Your task to perform on an android device: turn off picture-in-picture Image 0: 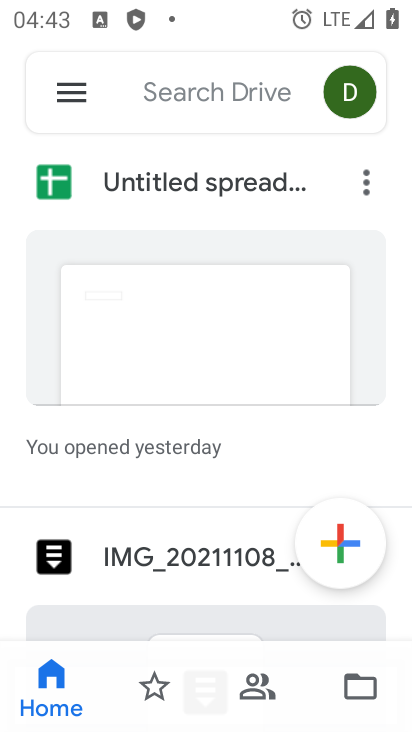
Step 0: press home button
Your task to perform on an android device: turn off picture-in-picture Image 1: 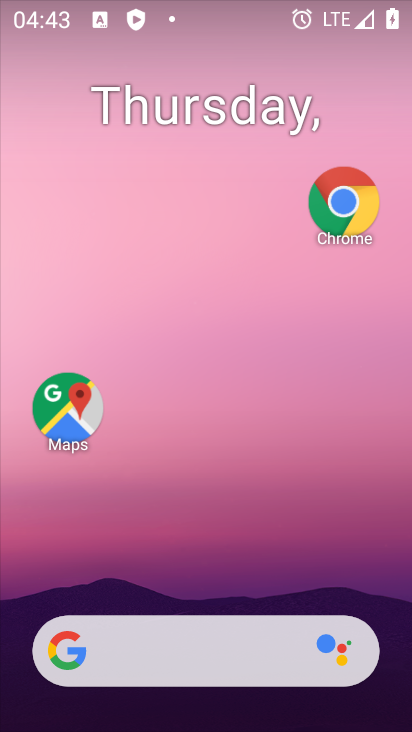
Step 1: drag from (340, 639) to (381, 132)
Your task to perform on an android device: turn off picture-in-picture Image 2: 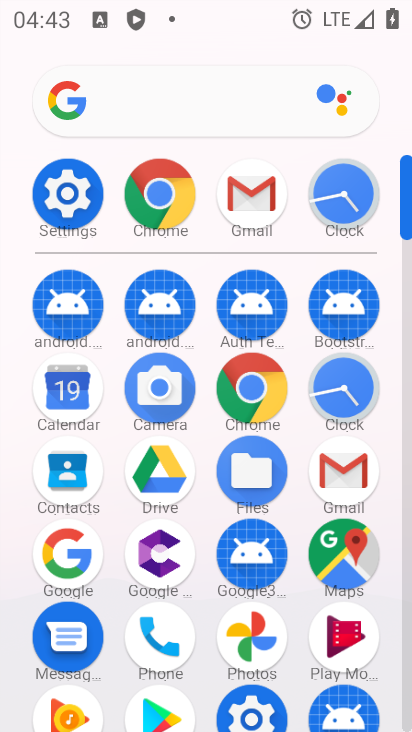
Step 2: click (61, 189)
Your task to perform on an android device: turn off picture-in-picture Image 3: 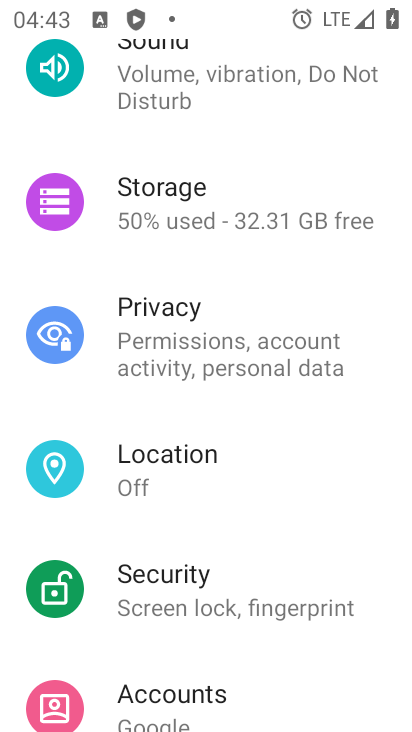
Step 3: drag from (251, 212) to (234, 680)
Your task to perform on an android device: turn off picture-in-picture Image 4: 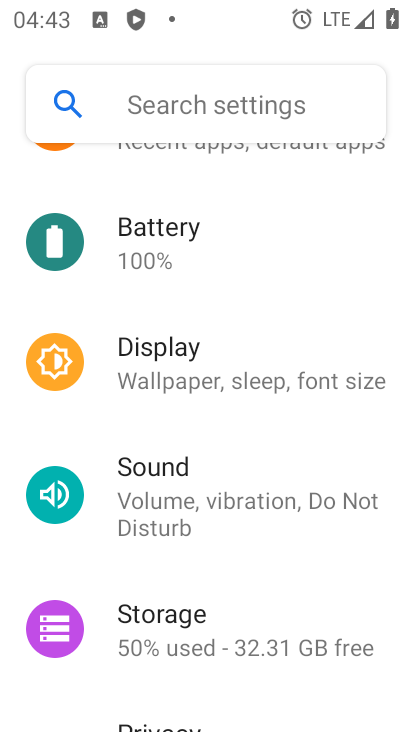
Step 4: drag from (222, 322) to (239, 699)
Your task to perform on an android device: turn off picture-in-picture Image 5: 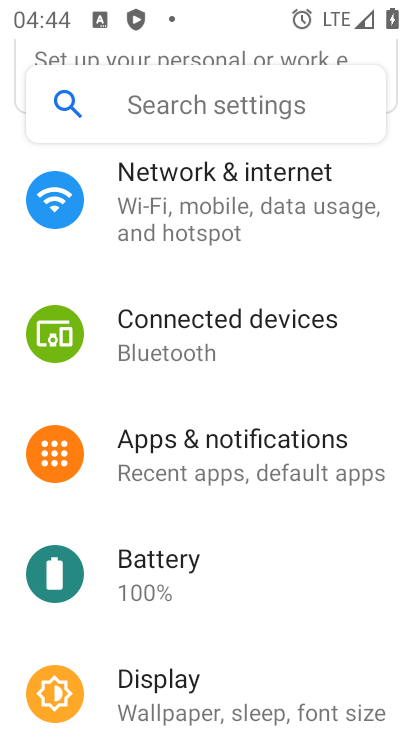
Step 5: click (238, 465)
Your task to perform on an android device: turn off picture-in-picture Image 6: 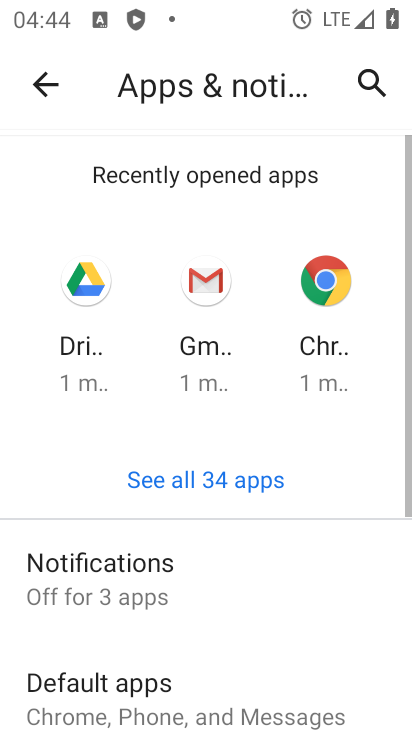
Step 6: drag from (275, 627) to (246, 93)
Your task to perform on an android device: turn off picture-in-picture Image 7: 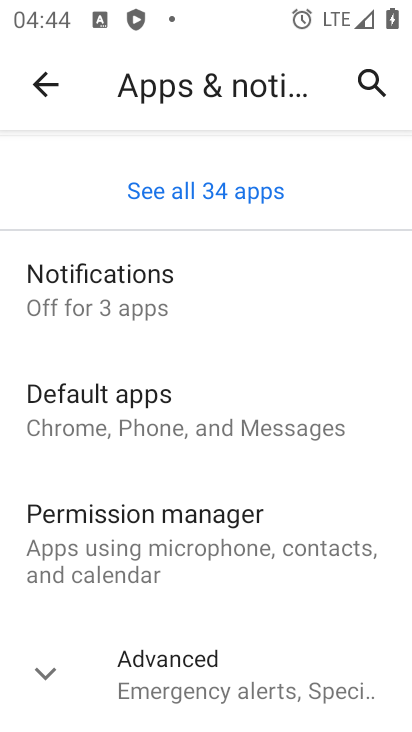
Step 7: click (235, 663)
Your task to perform on an android device: turn off picture-in-picture Image 8: 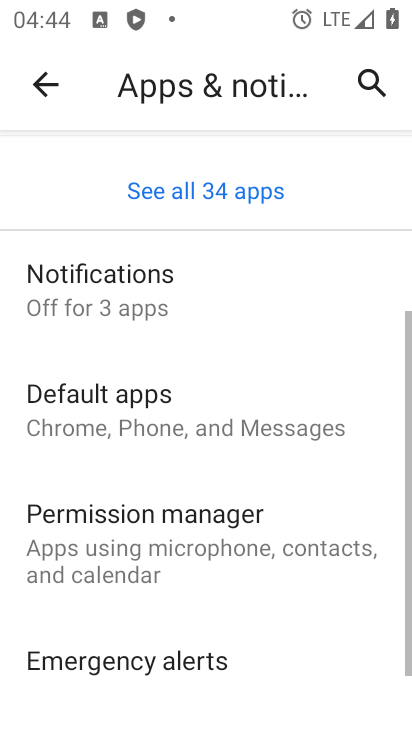
Step 8: drag from (240, 688) to (227, 127)
Your task to perform on an android device: turn off picture-in-picture Image 9: 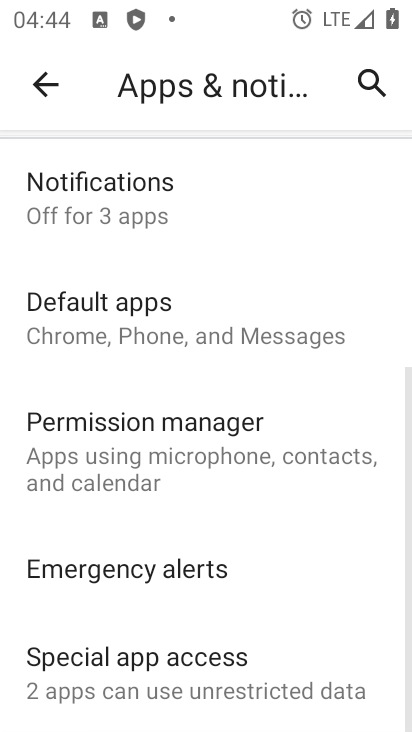
Step 9: click (233, 676)
Your task to perform on an android device: turn off picture-in-picture Image 10: 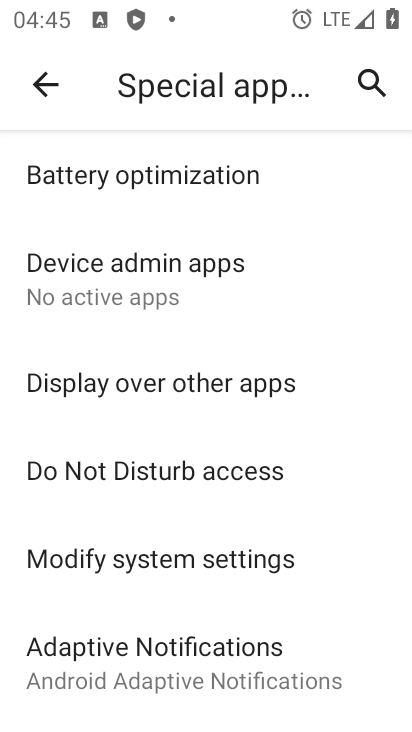
Step 10: drag from (197, 666) to (210, 202)
Your task to perform on an android device: turn off picture-in-picture Image 11: 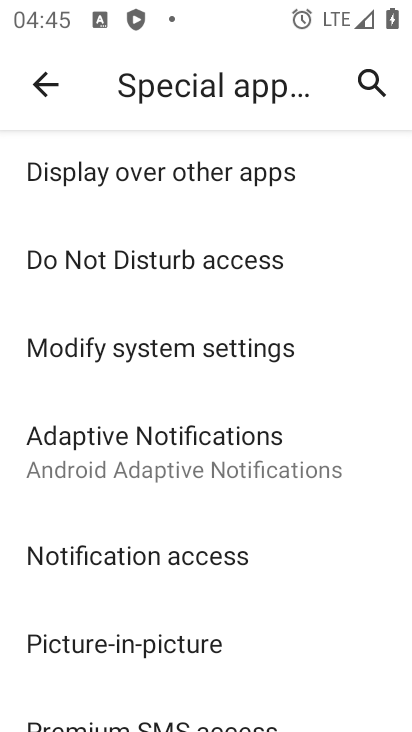
Step 11: click (161, 640)
Your task to perform on an android device: turn off picture-in-picture Image 12: 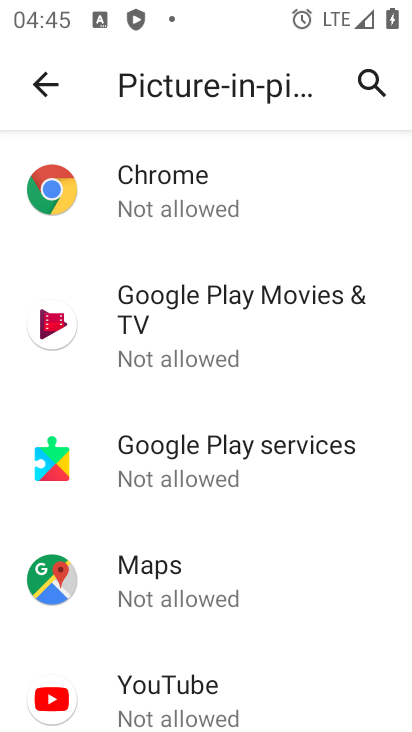
Step 12: task complete